Your task to perform on an android device: find which apps use the phone's location Image 0: 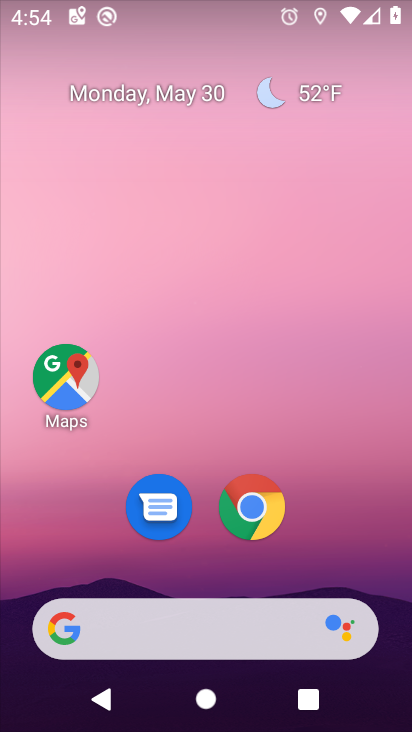
Step 0: drag from (356, 565) to (308, 193)
Your task to perform on an android device: find which apps use the phone's location Image 1: 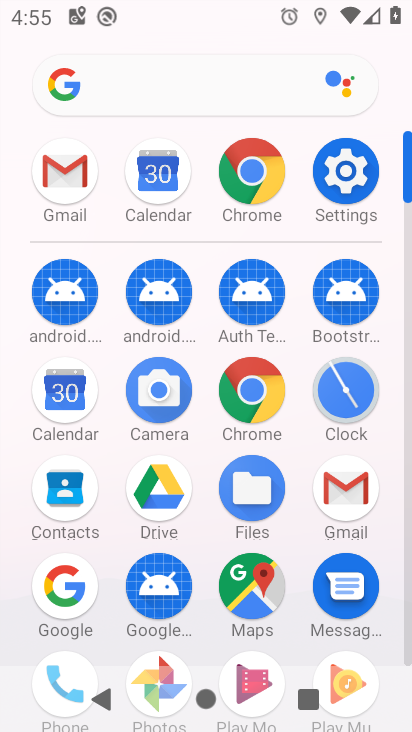
Step 1: click (408, 656)
Your task to perform on an android device: find which apps use the phone's location Image 2: 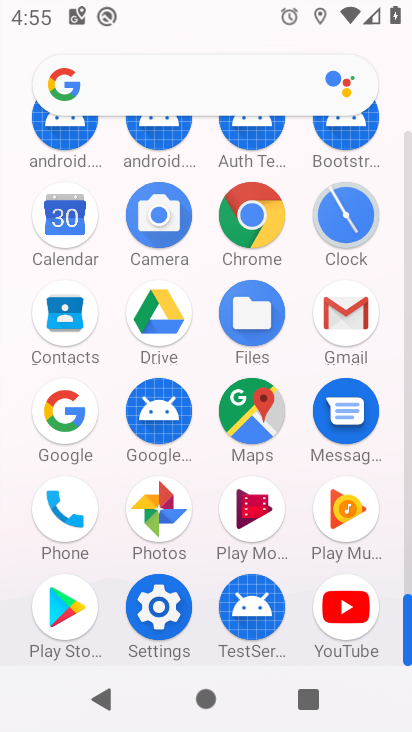
Step 2: click (68, 492)
Your task to perform on an android device: find which apps use the phone's location Image 3: 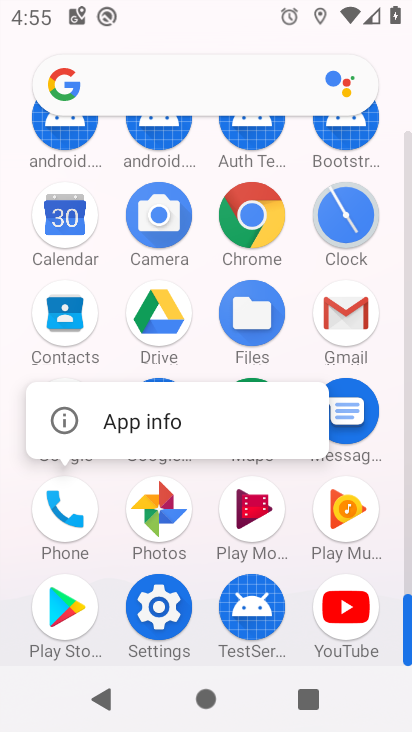
Step 3: click (128, 413)
Your task to perform on an android device: find which apps use the phone's location Image 4: 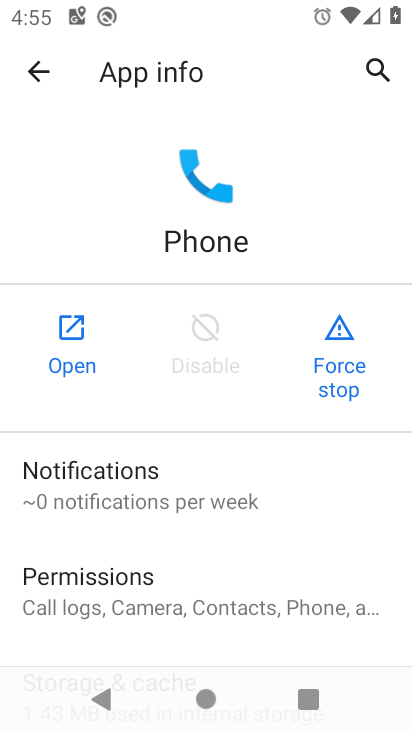
Step 4: click (125, 614)
Your task to perform on an android device: find which apps use the phone's location Image 5: 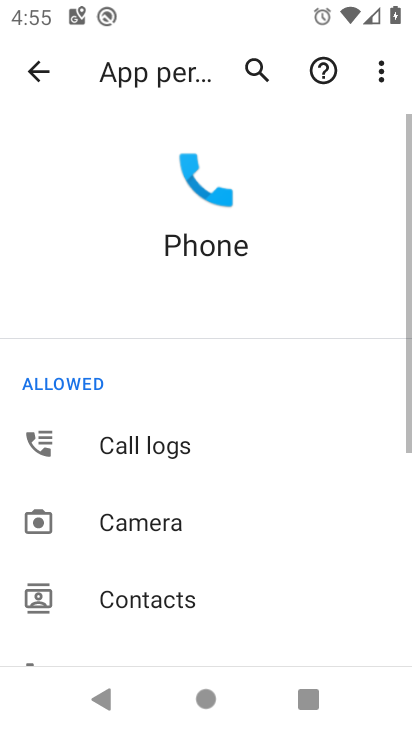
Step 5: drag from (168, 601) to (202, 5)
Your task to perform on an android device: find which apps use the phone's location Image 6: 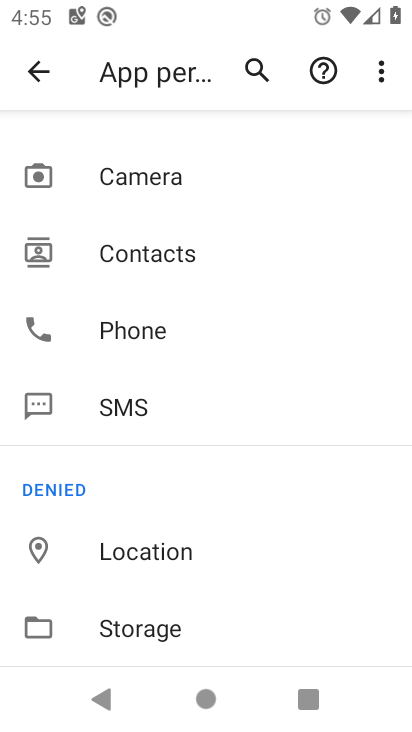
Step 6: click (108, 536)
Your task to perform on an android device: find which apps use the phone's location Image 7: 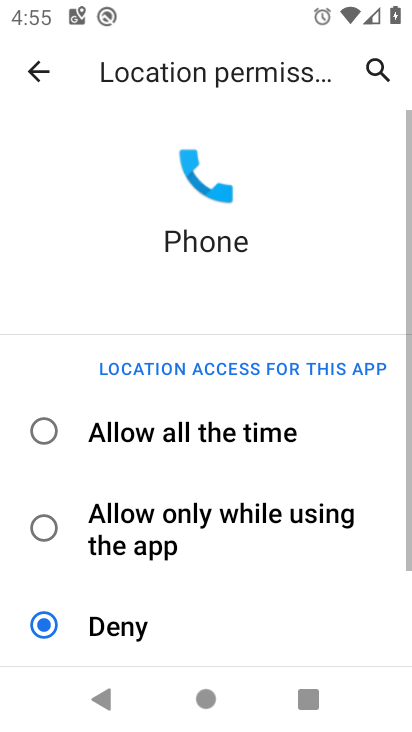
Step 7: drag from (133, 582) to (185, 57)
Your task to perform on an android device: find which apps use the phone's location Image 8: 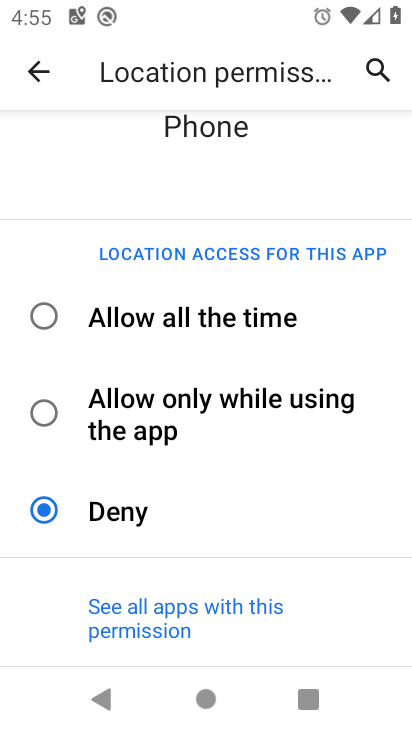
Step 8: click (176, 631)
Your task to perform on an android device: find which apps use the phone's location Image 9: 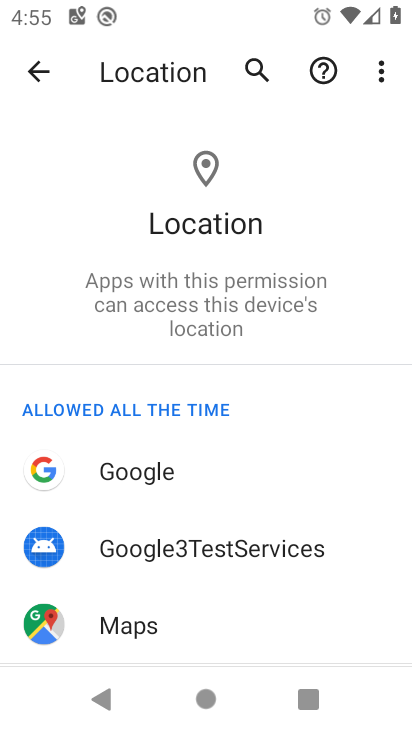
Step 9: task complete